Your task to perform on an android device: Go to Reddit.com Image 0: 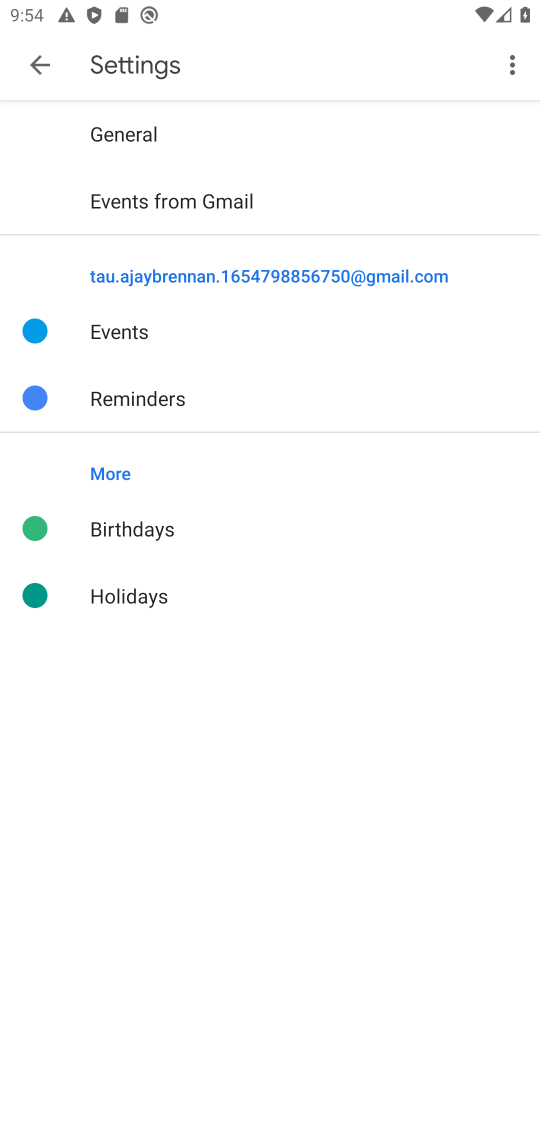
Step 0: type "Reddit.com"
Your task to perform on an android device: Go to Reddit.com Image 1: 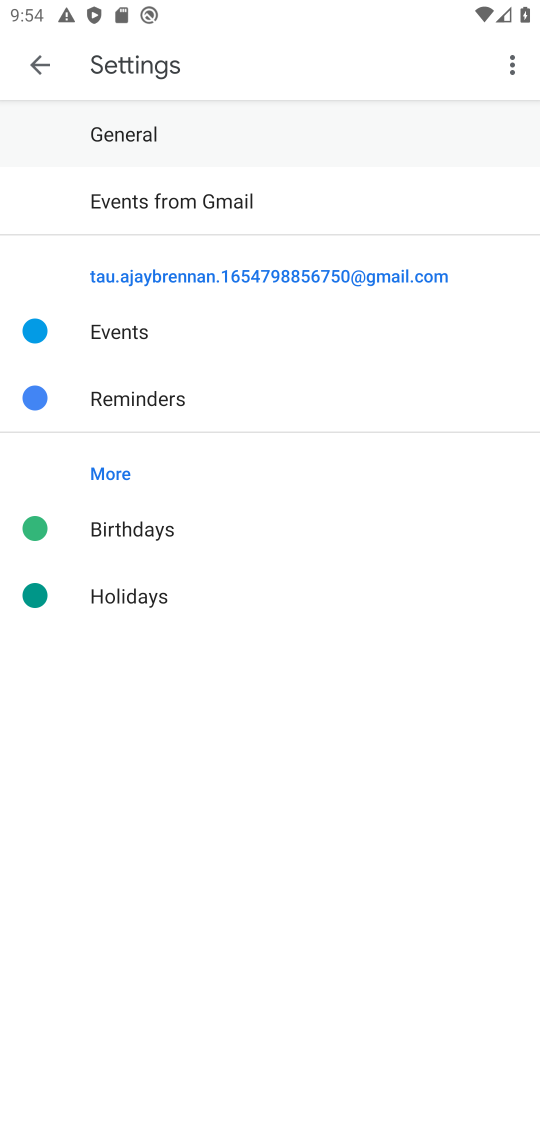
Step 1: press enter
Your task to perform on an android device: Go to Reddit.com Image 2: 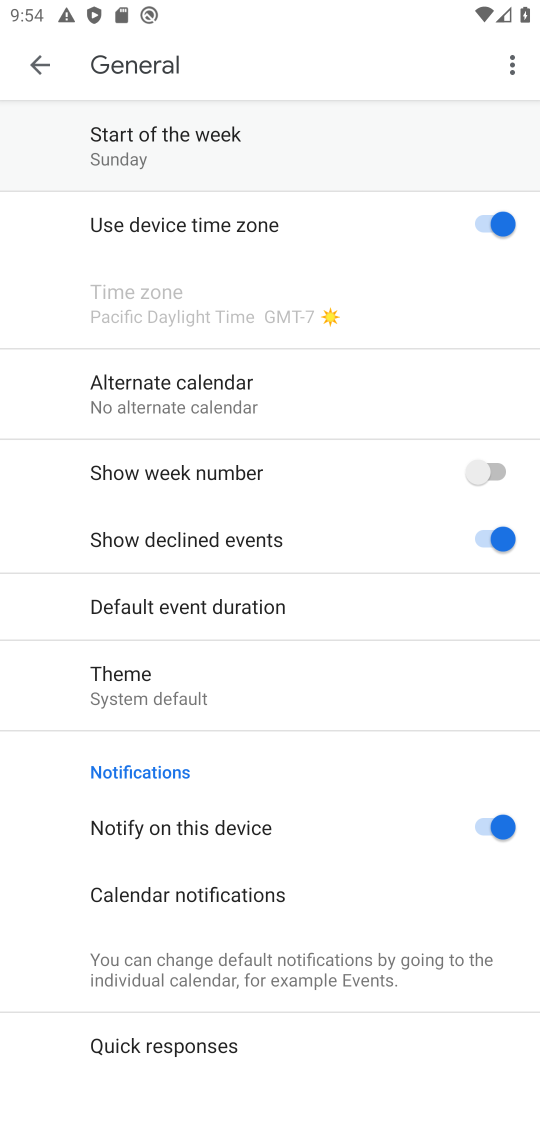
Step 2: task complete